Your task to perform on an android device: Open Google Chrome Image 0: 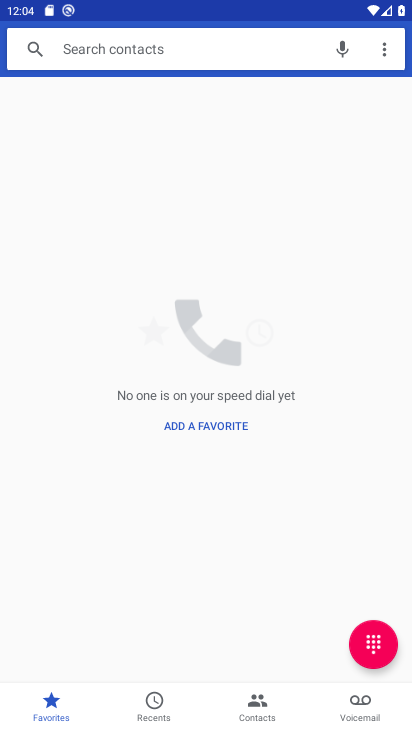
Step 0: press home button
Your task to perform on an android device: Open Google Chrome Image 1: 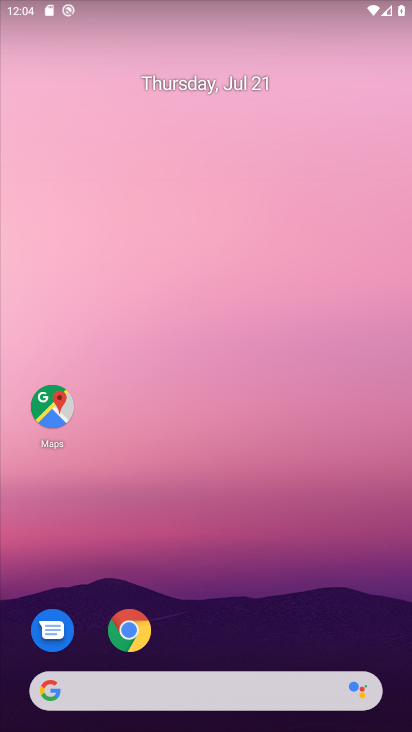
Step 1: drag from (190, 649) to (198, 249)
Your task to perform on an android device: Open Google Chrome Image 2: 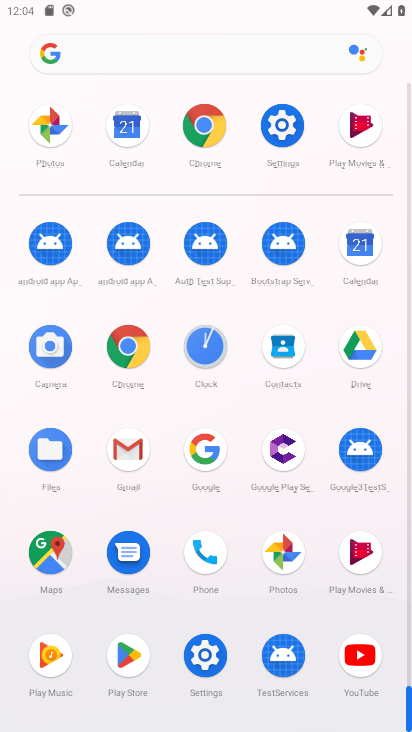
Step 2: click (195, 126)
Your task to perform on an android device: Open Google Chrome Image 3: 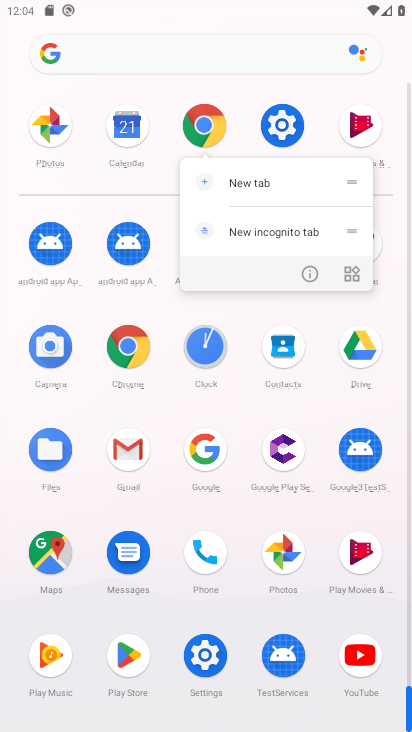
Step 3: click (315, 272)
Your task to perform on an android device: Open Google Chrome Image 4: 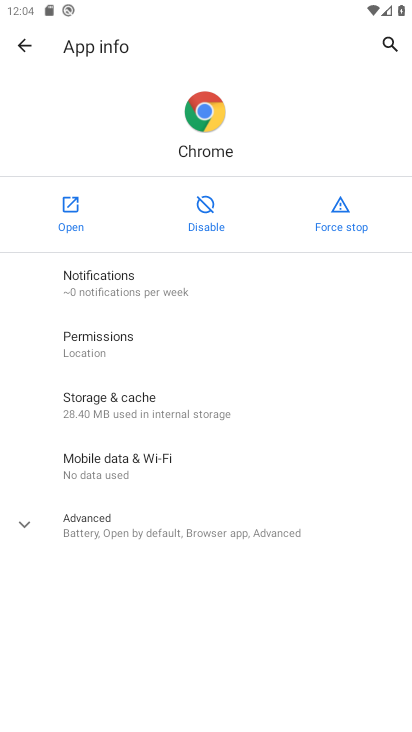
Step 4: click (64, 214)
Your task to perform on an android device: Open Google Chrome Image 5: 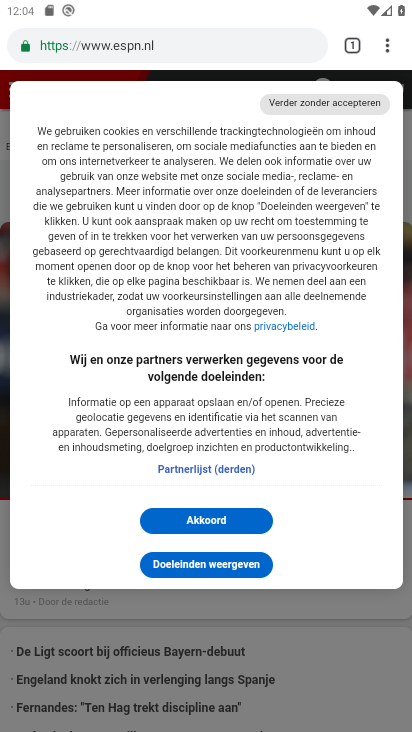
Step 5: task complete